Your task to perform on an android device: all mails in gmail Image 0: 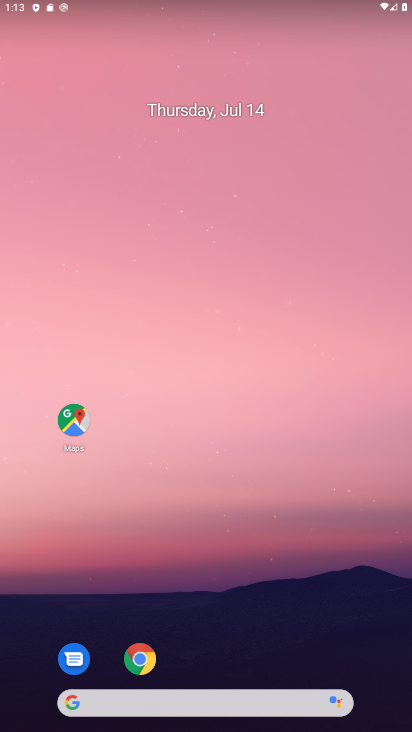
Step 0: drag from (213, 656) to (218, 221)
Your task to perform on an android device: all mails in gmail Image 1: 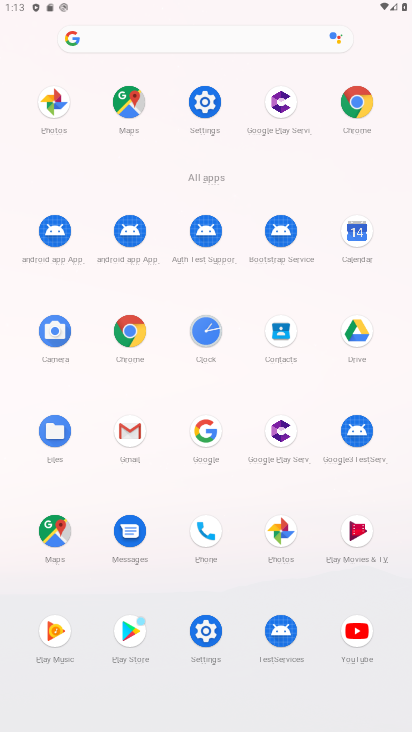
Step 1: click (139, 429)
Your task to perform on an android device: all mails in gmail Image 2: 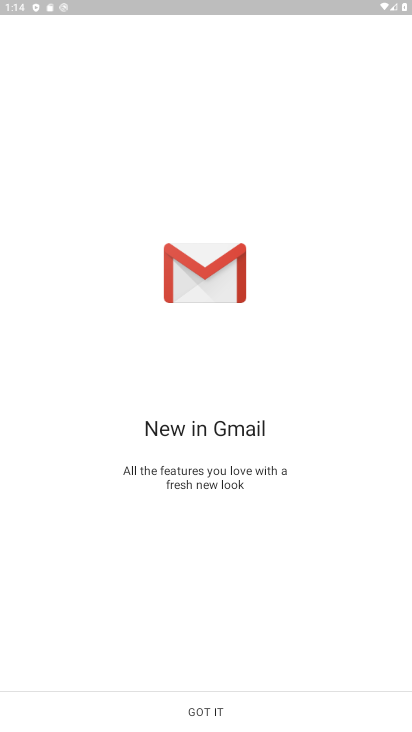
Step 2: click (253, 694)
Your task to perform on an android device: all mails in gmail Image 3: 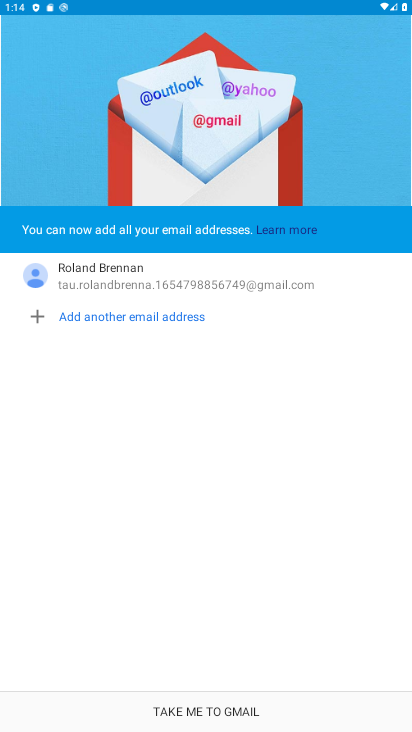
Step 3: click (251, 695)
Your task to perform on an android device: all mails in gmail Image 4: 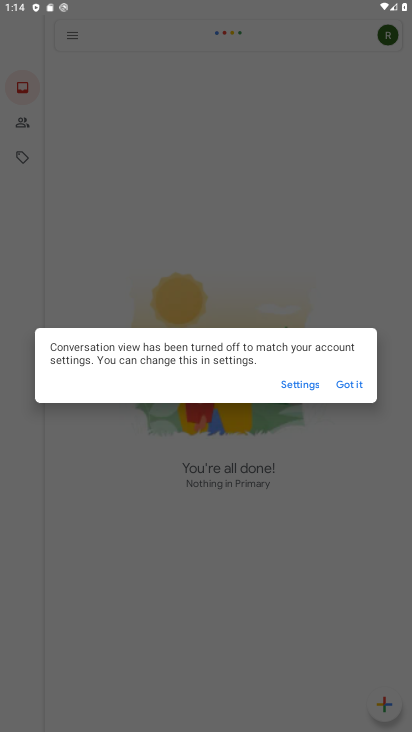
Step 4: click (345, 385)
Your task to perform on an android device: all mails in gmail Image 5: 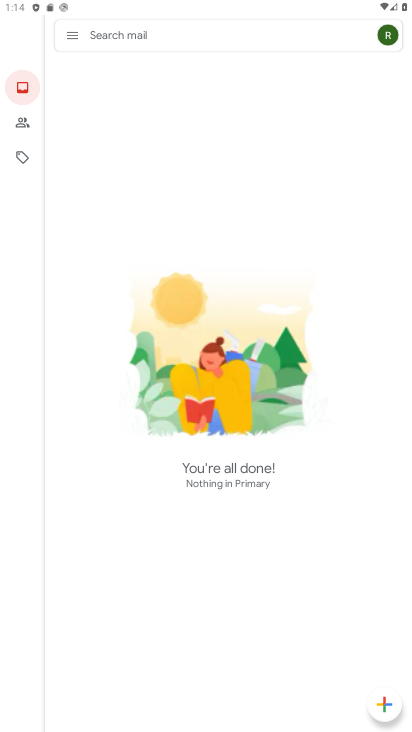
Step 5: click (75, 39)
Your task to perform on an android device: all mails in gmail Image 6: 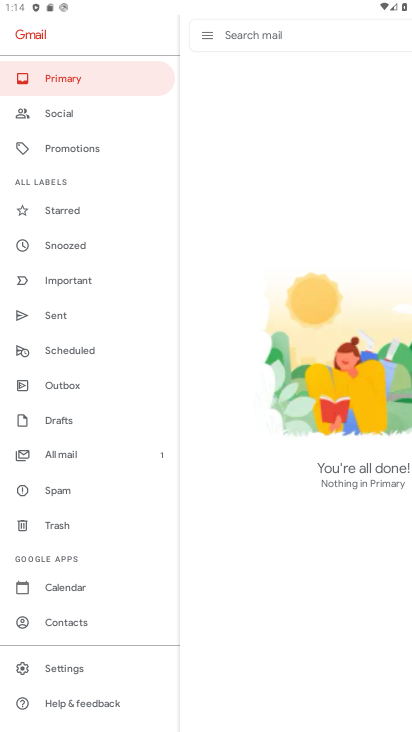
Step 6: click (91, 457)
Your task to perform on an android device: all mails in gmail Image 7: 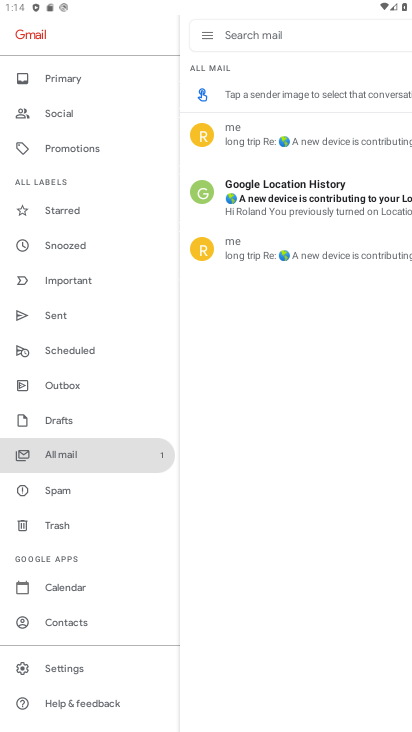
Step 7: task complete